Your task to perform on an android device: Open the Play Movies app and select the watchlist tab. Image 0: 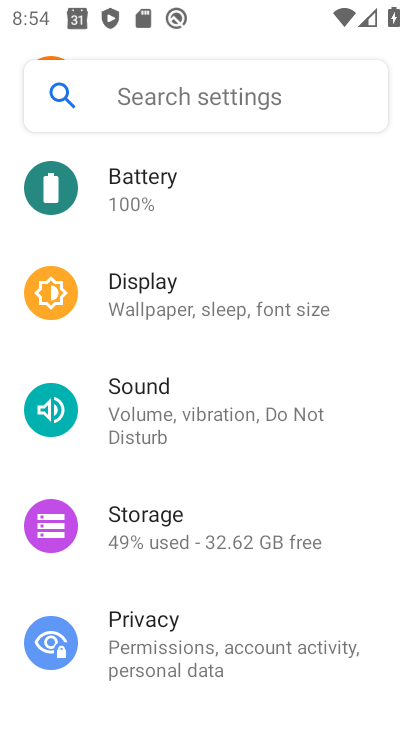
Step 0: press back button
Your task to perform on an android device: Open the Play Movies app and select the watchlist tab. Image 1: 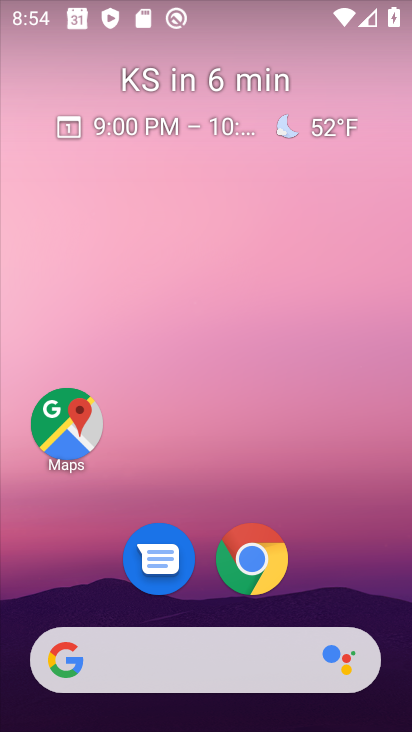
Step 1: drag from (366, 594) to (295, 15)
Your task to perform on an android device: Open the Play Movies app and select the watchlist tab. Image 2: 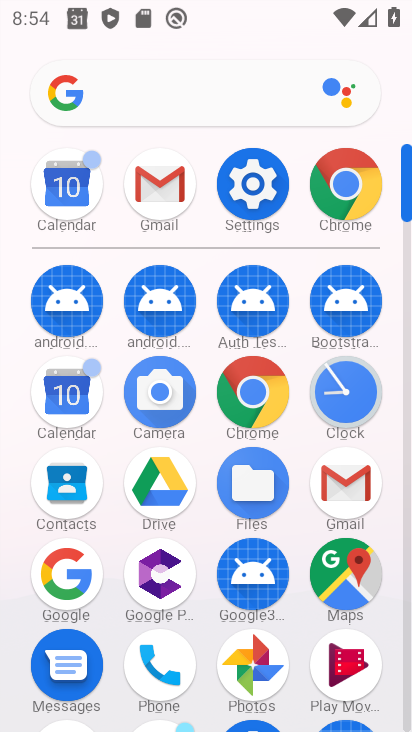
Step 2: drag from (8, 524) to (16, 175)
Your task to perform on an android device: Open the Play Movies app and select the watchlist tab. Image 3: 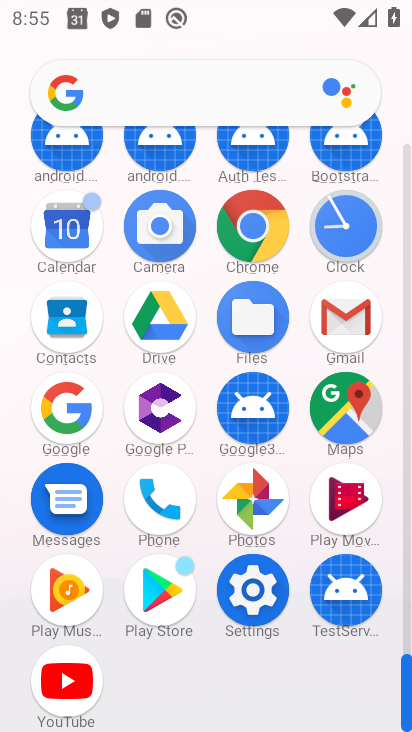
Step 3: click (344, 496)
Your task to perform on an android device: Open the Play Movies app and select the watchlist tab. Image 4: 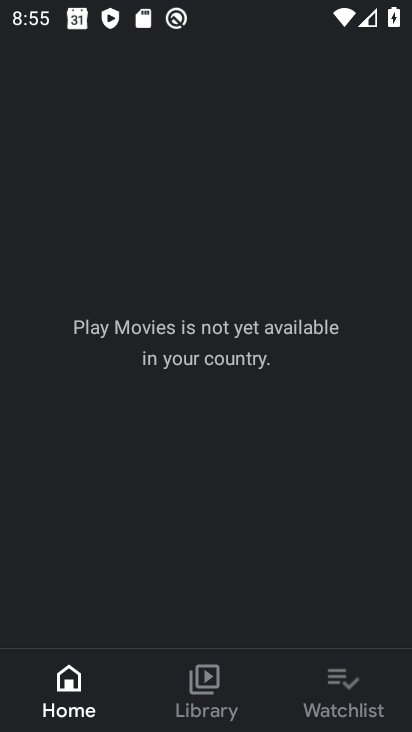
Step 4: click (349, 673)
Your task to perform on an android device: Open the Play Movies app and select the watchlist tab. Image 5: 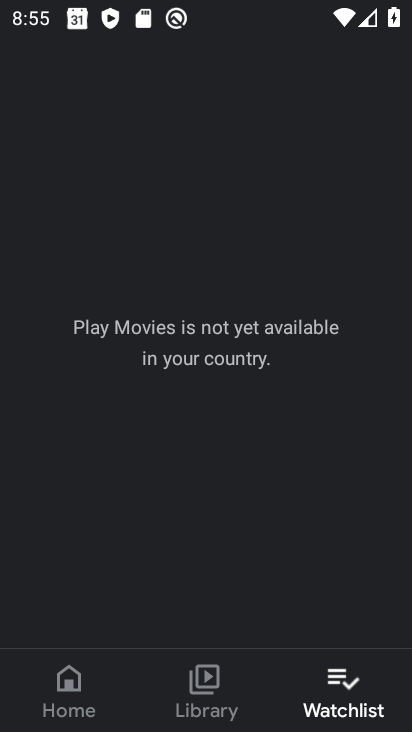
Step 5: task complete